Your task to perform on an android device: all mails in gmail Image 0: 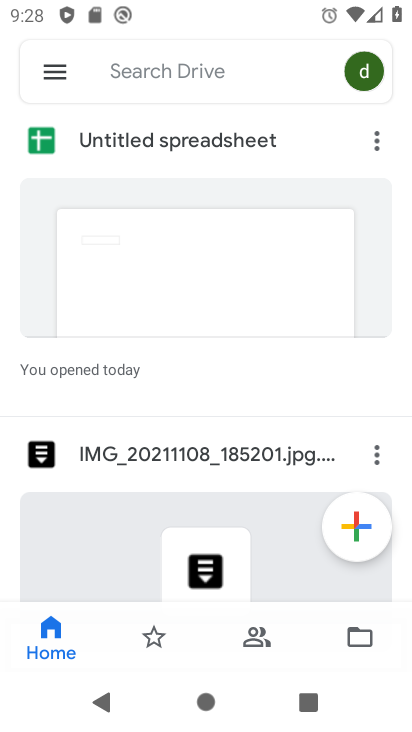
Step 0: press home button
Your task to perform on an android device: all mails in gmail Image 1: 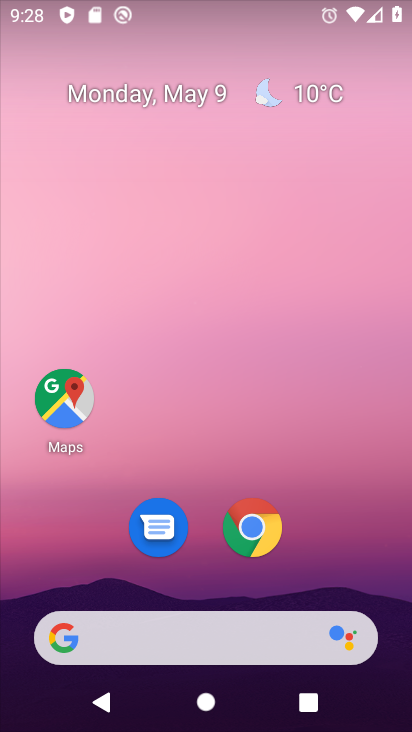
Step 1: drag from (370, 581) to (304, 123)
Your task to perform on an android device: all mails in gmail Image 2: 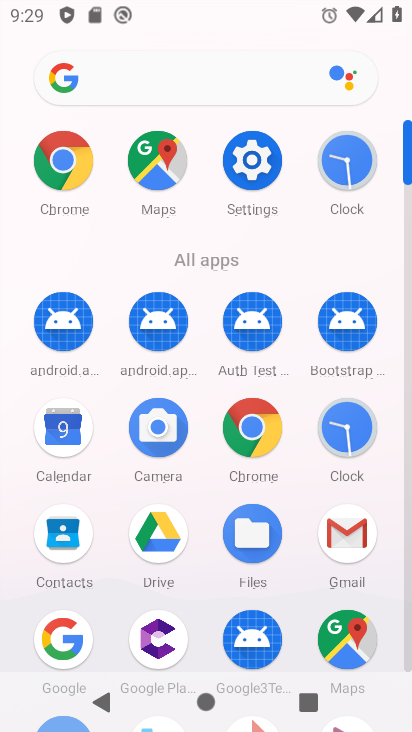
Step 2: click (344, 527)
Your task to perform on an android device: all mails in gmail Image 3: 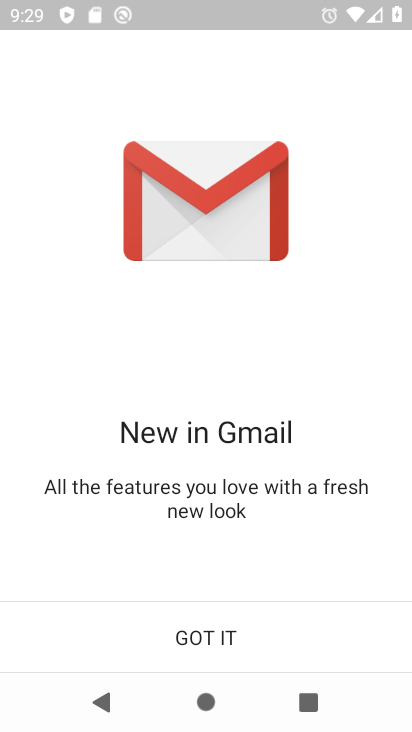
Step 3: click (197, 634)
Your task to perform on an android device: all mails in gmail Image 4: 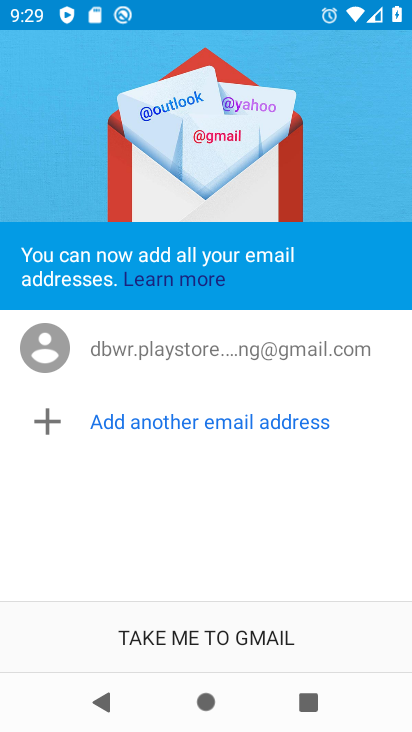
Step 4: click (177, 632)
Your task to perform on an android device: all mails in gmail Image 5: 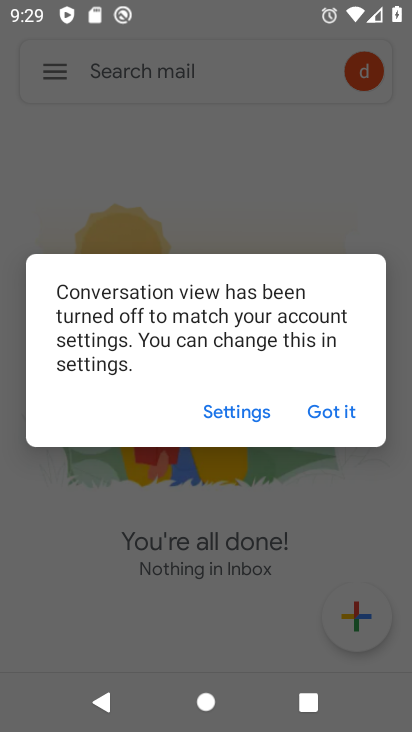
Step 5: click (326, 414)
Your task to perform on an android device: all mails in gmail Image 6: 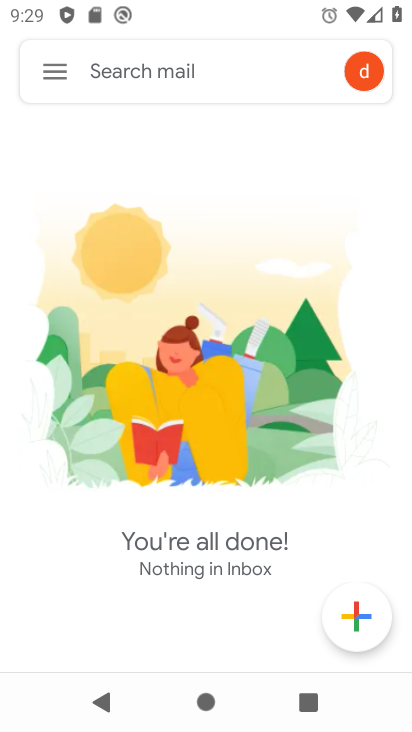
Step 6: click (51, 76)
Your task to perform on an android device: all mails in gmail Image 7: 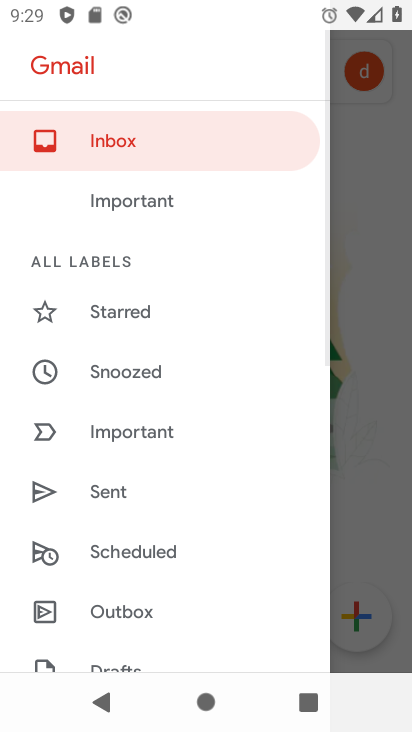
Step 7: drag from (170, 622) to (209, 145)
Your task to perform on an android device: all mails in gmail Image 8: 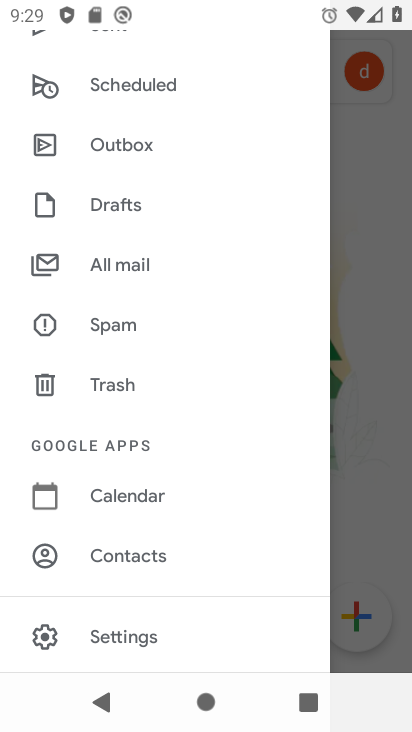
Step 8: click (109, 264)
Your task to perform on an android device: all mails in gmail Image 9: 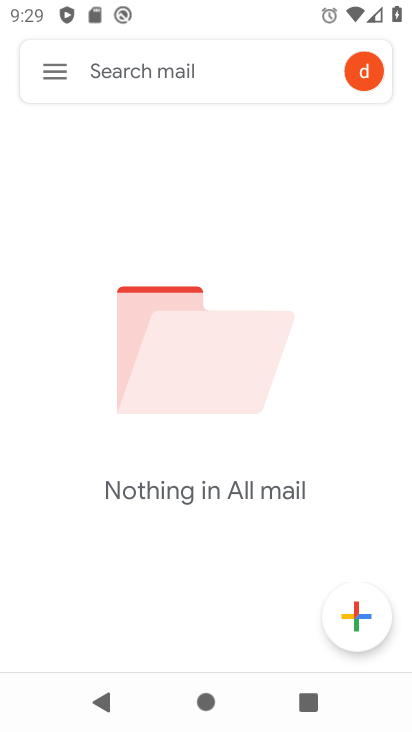
Step 9: task complete